Your task to perform on an android device: show emergency info Image 0: 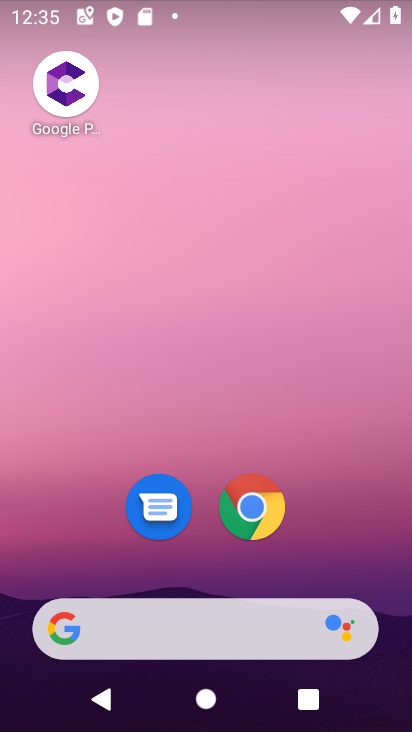
Step 0: drag from (303, 563) to (363, 11)
Your task to perform on an android device: show emergency info Image 1: 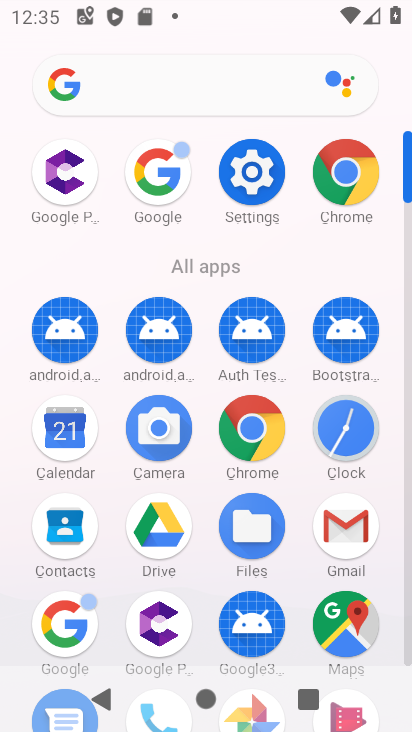
Step 1: click (251, 169)
Your task to perform on an android device: show emergency info Image 2: 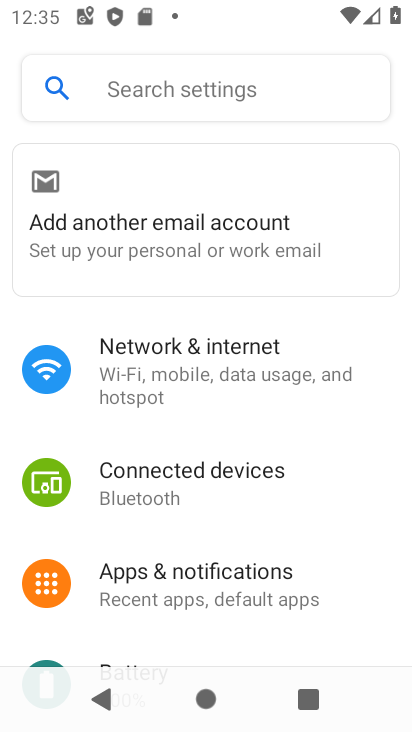
Step 2: drag from (225, 543) to (297, 362)
Your task to perform on an android device: show emergency info Image 3: 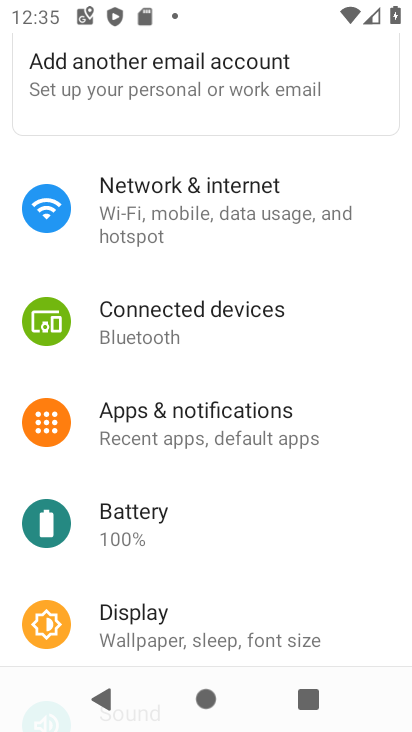
Step 3: drag from (184, 488) to (269, 356)
Your task to perform on an android device: show emergency info Image 4: 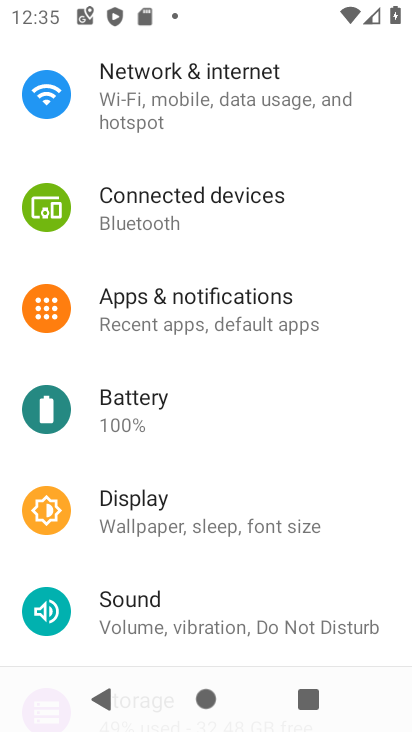
Step 4: drag from (202, 461) to (291, 346)
Your task to perform on an android device: show emergency info Image 5: 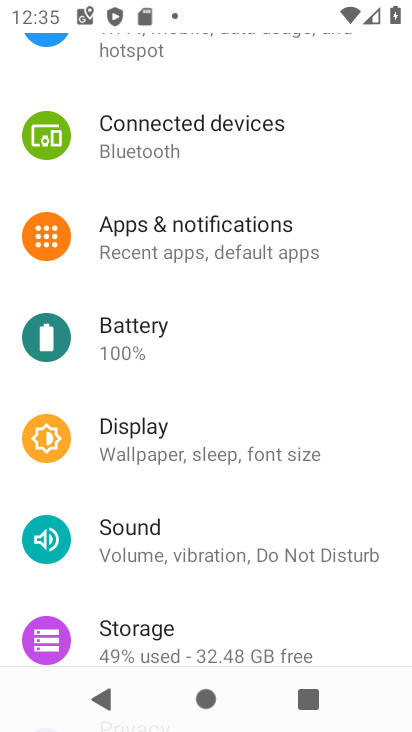
Step 5: drag from (207, 498) to (301, 385)
Your task to perform on an android device: show emergency info Image 6: 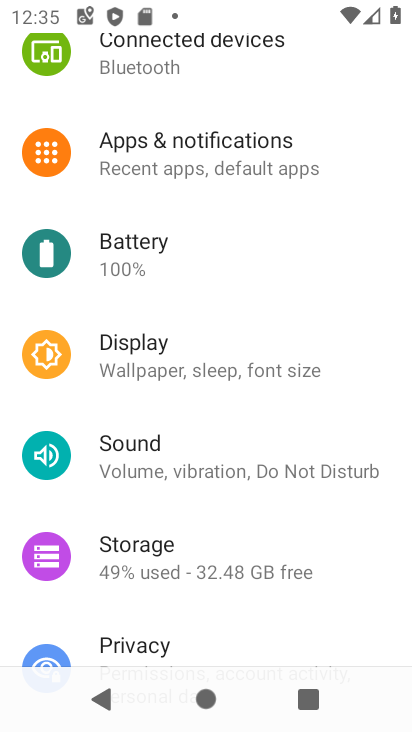
Step 6: drag from (194, 431) to (267, 296)
Your task to perform on an android device: show emergency info Image 7: 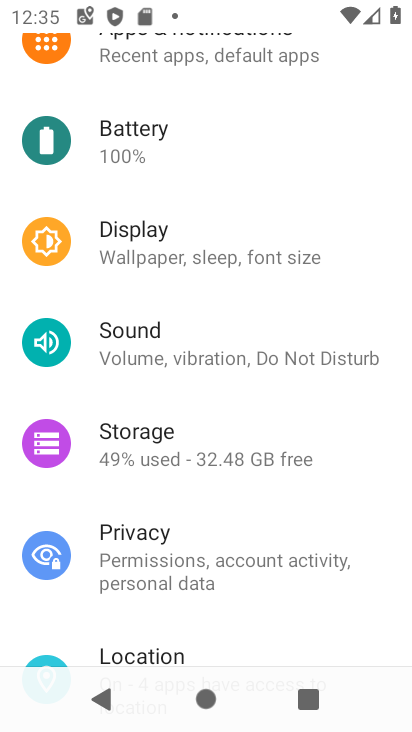
Step 7: drag from (188, 402) to (251, 277)
Your task to perform on an android device: show emergency info Image 8: 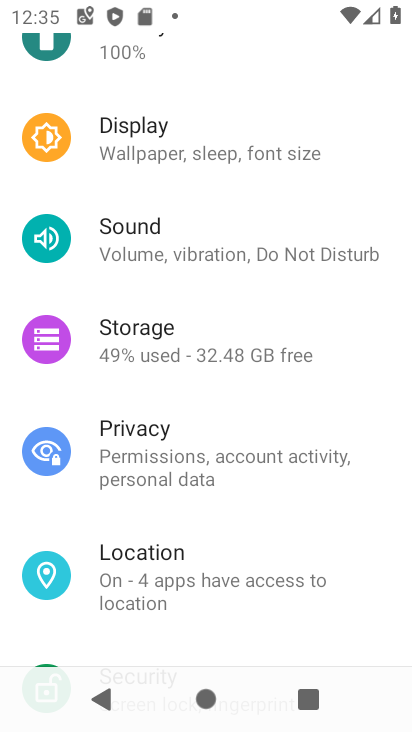
Step 8: drag from (174, 399) to (260, 268)
Your task to perform on an android device: show emergency info Image 9: 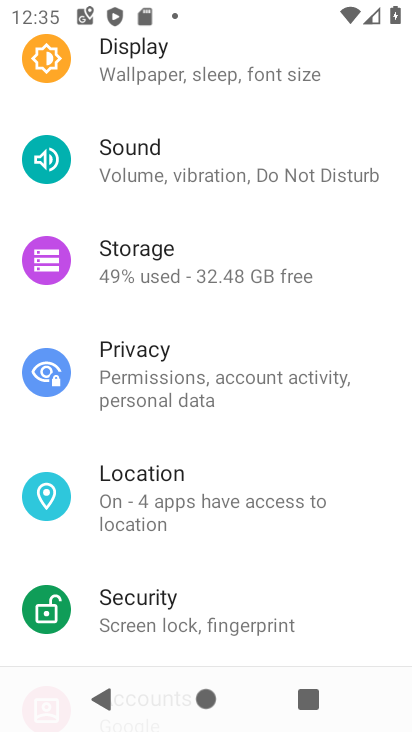
Step 9: drag from (200, 341) to (300, 213)
Your task to perform on an android device: show emergency info Image 10: 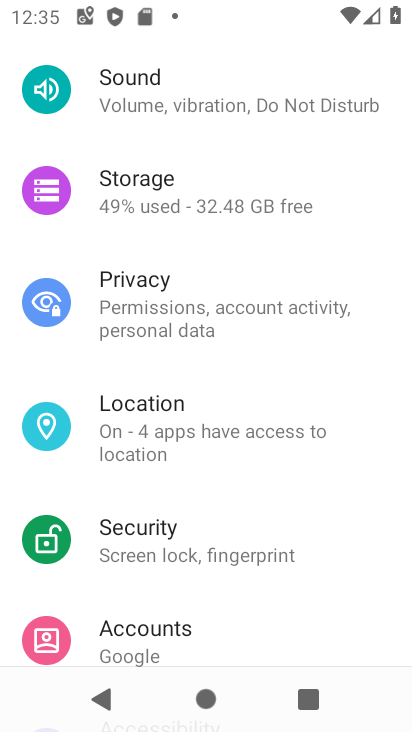
Step 10: drag from (177, 385) to (278, 237)
Your task to perform on an android device: show emergency info Image 11: 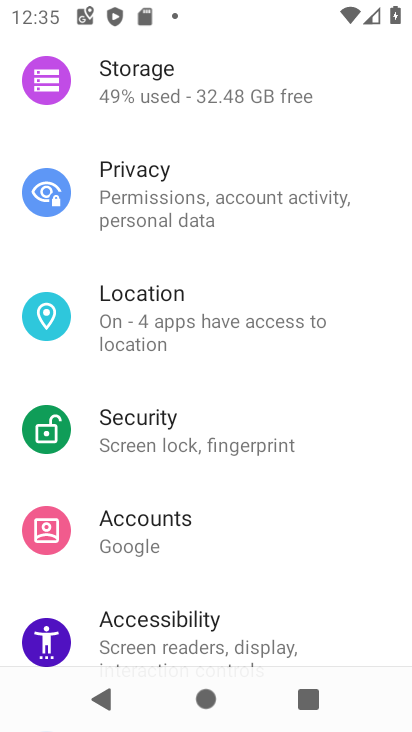
Step 11: drag from (166, 383) to (268, 269)
Your task to perform on an android device: show emergency info Image 12: 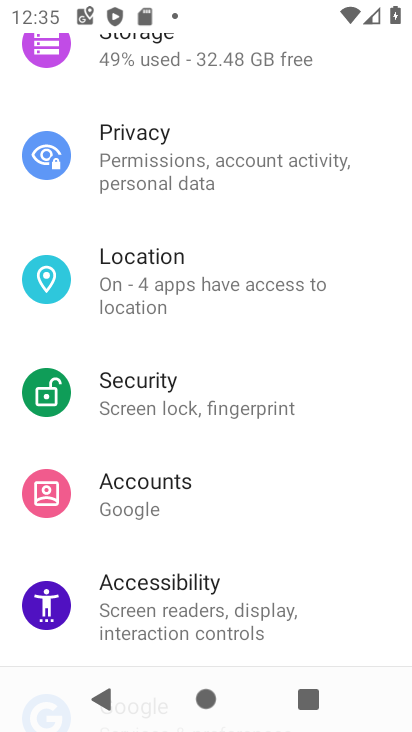
Step 12: drag from (216, 468) to (288, 355)
Your task to perform on an android device: show emergency info Image 13: 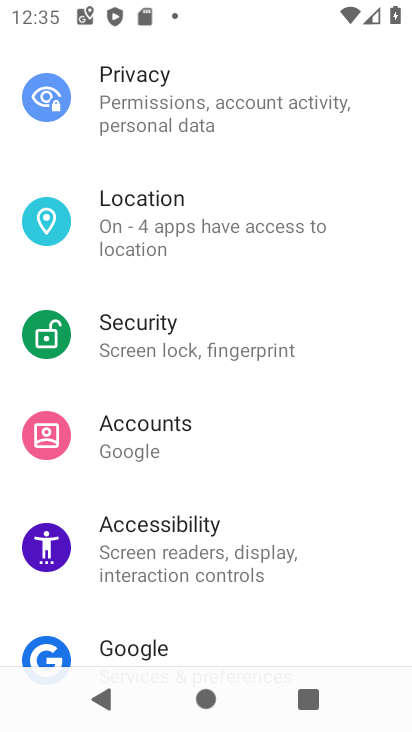
Step 13: drag from (192, 478) to (276, 356)
Your task to perform on an android device: show emergency info Image 14: 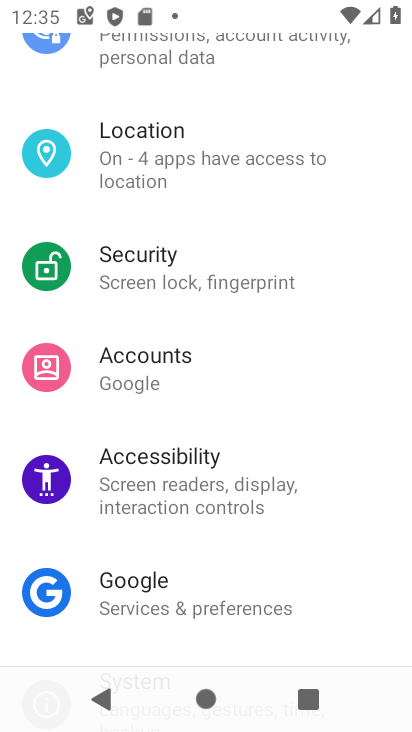
Step 14: drag from (161, 543) to (277, 388)
Your task to perform on an android device: show emergency info Image 15: 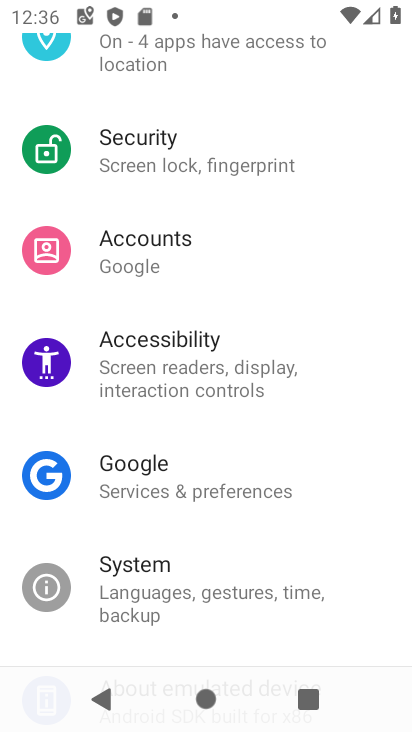
Step 15: drag from (161, 539) to (258, 431)
Your task to perform on an android device: show emergency info Image 16: 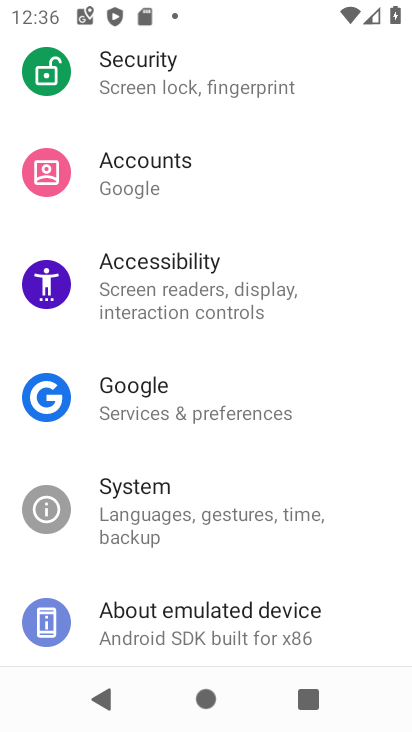
Step 16: click (162, 616)
Your task to perform on an android device: show emergency info Image 17: 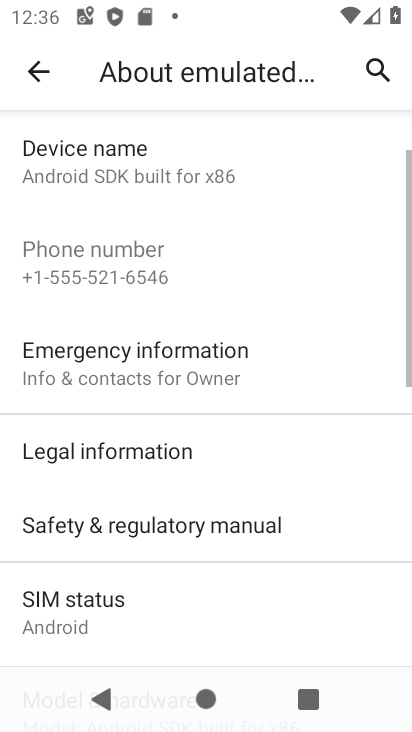
Step 17: click (181, 348)
Your task to perform on an android device: show emergency info Image 18: 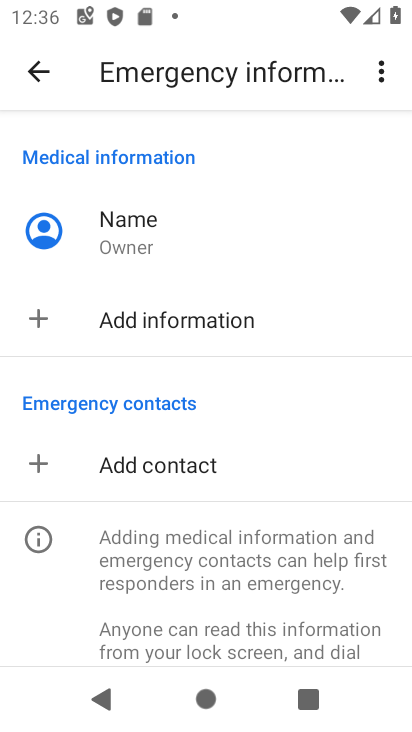
Step 18: task complete